Your task to perform on an android device: Show me the alarms in the clock app Image 0: 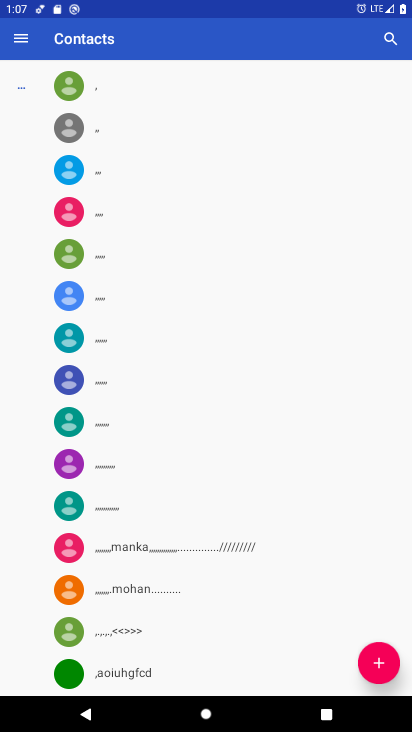
Step 0: press home button
Your task to perform on an android device: Show me the alarms in the clock app Image 1: 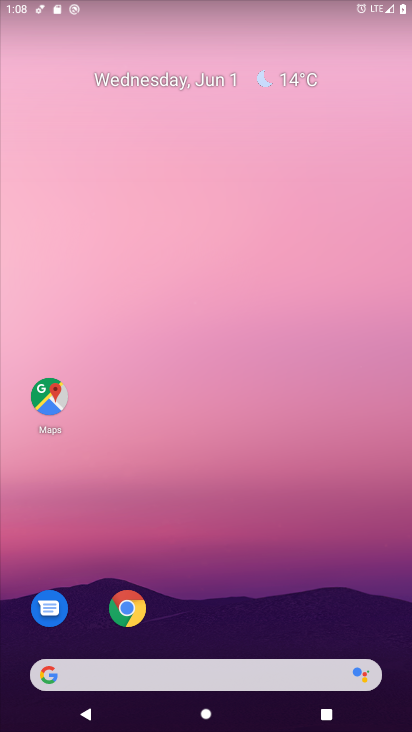
Step 1: drag from (229, 616) to (394, 18)
Your task to perform on an android device: Show me the alarms in the clock app Image 2: 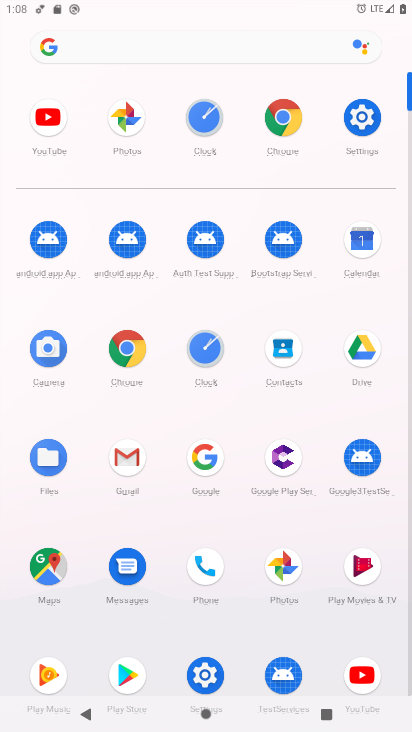
Step 2: click (204, 365)
Your task to perform on an android device: Show me the alarms in the clock app Image 3: 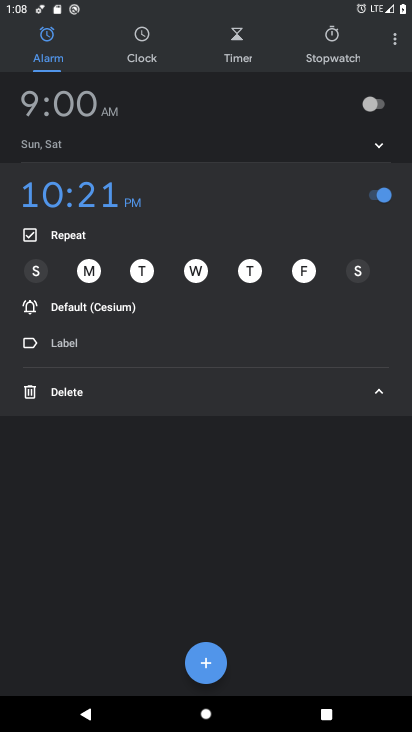
Step 3: click (380, 388)
Your task to perform on an android device: Show me the alarms in the clock app Image 4: 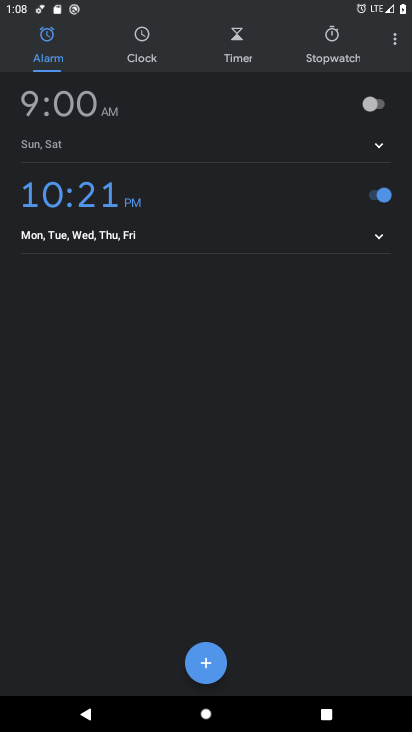
Step 4: task complete